Your task to perform on an android device: turn on the 12-hour format for clock Image 0: 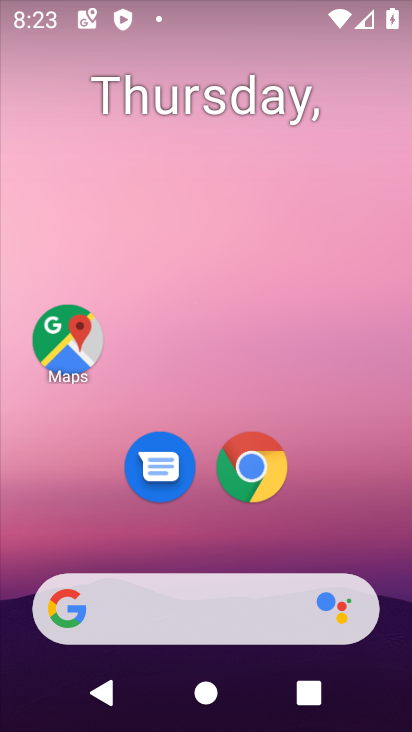
Step 0: drag from (343, 555) to (346, 274)
Your task to perform on an android device: turn on the 12-hour format for clock Image 1: 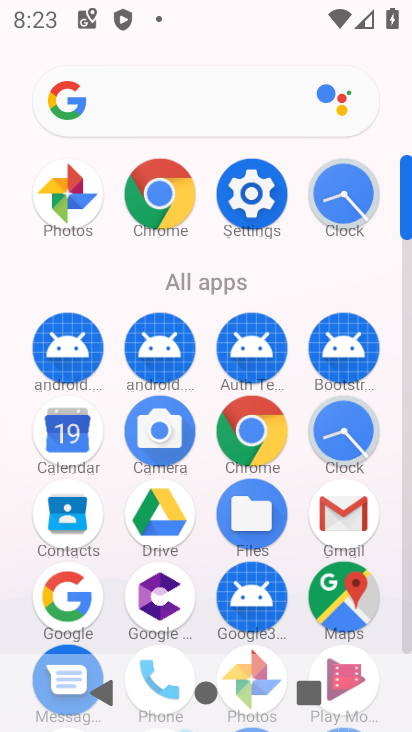
Step 1: click (333, 428)
Your task to perform on an android device: turn on the 12-hour format for clock Image 2: 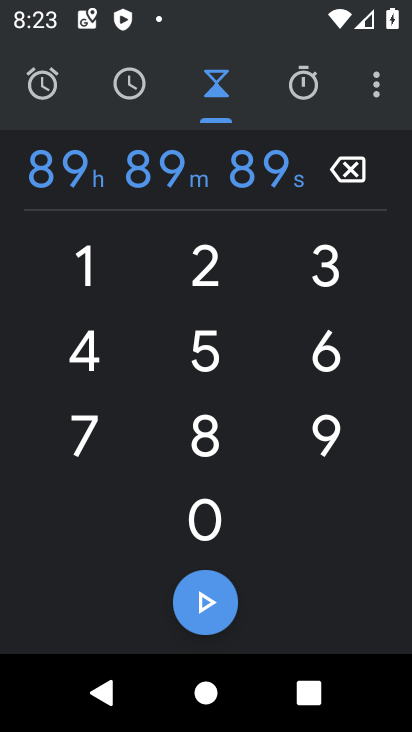
Step 2: click (376, 99)
Your task to perform on an android device: turn on the 12-hour format for clock Image 3: 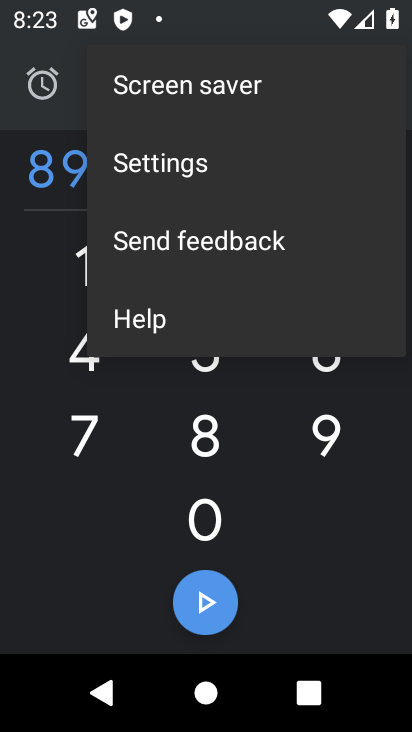
Step 3: click (229, 175)
Your task to perform on an android device: turn on the 12-hour format for clock Image 4: 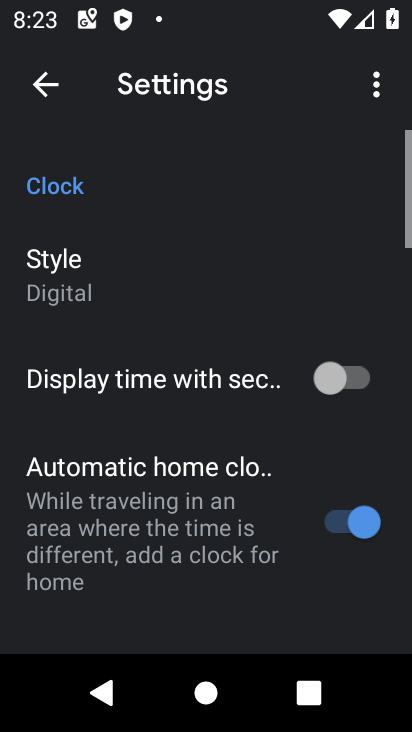
Step 4: drag from (264, 518) to (266, 240)
Your task to perform on an android device: turn on the 12-hour format for clock Image 5: 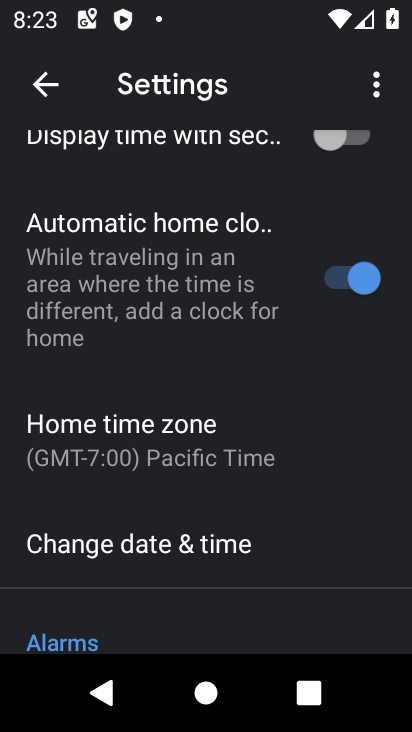
Step 5: drag from (199, 519) to (233, 280)
Your task to perform on an android device: turn on the 12-hour format for clock Image 6: 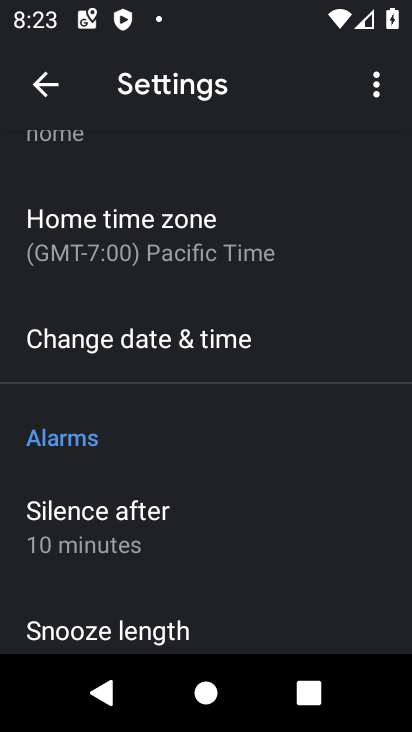
Step 6: click (197, 349)
Your task to perform on an android device: turn on the 12-hour format for clock Image 7: 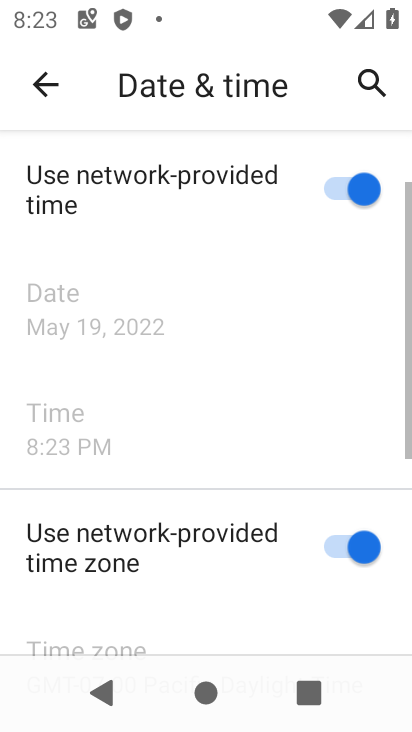
Step 7: drag from (241, 568) to (295, 254)
Your task to perform on an android device: turn on the 12-hour format for clock Image 8: 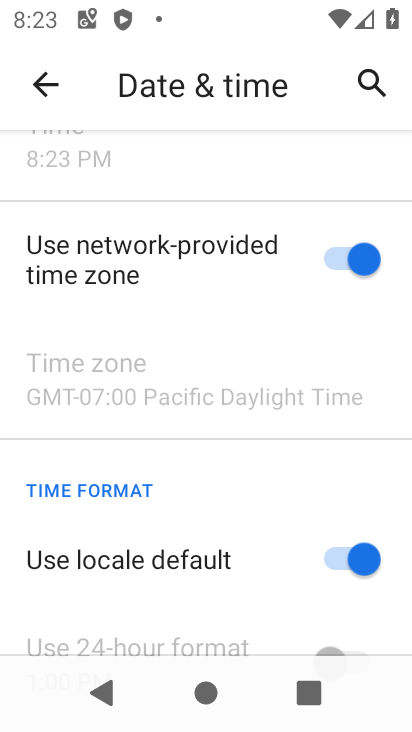
Step 8: drag from (198, 584) to (211, 369)
Your task to perform on an android device: turn on the 12-hour format for clock Image 9: 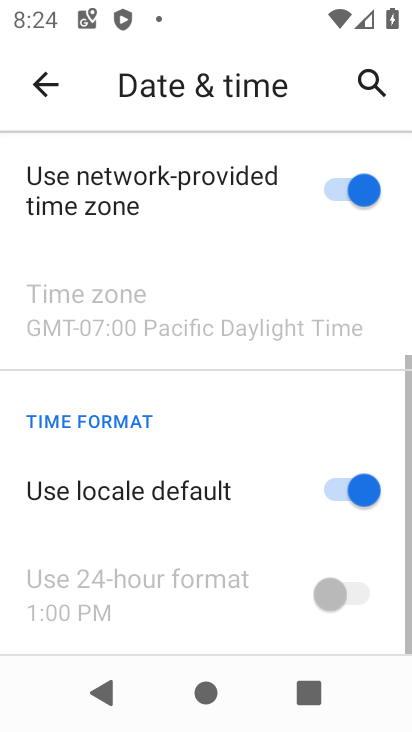
Step 9: click (354, 595)
Your task to perform on an android device: turn on the 12-hour format for clock Image 10: 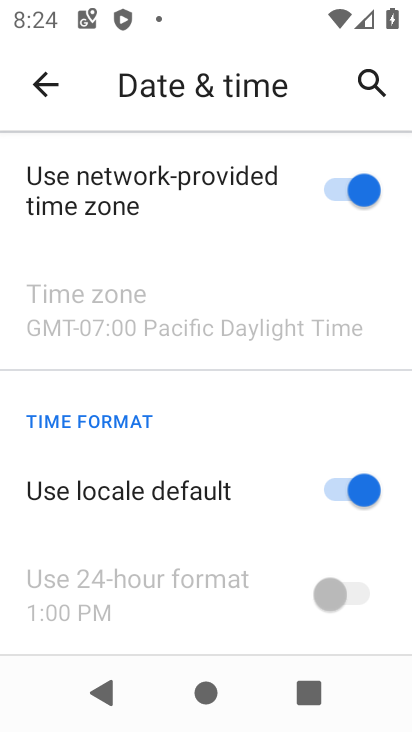
Step 10: click (332, 482)
Your task to perform on an android device: turn on the 12-hour format for clock Image 11: 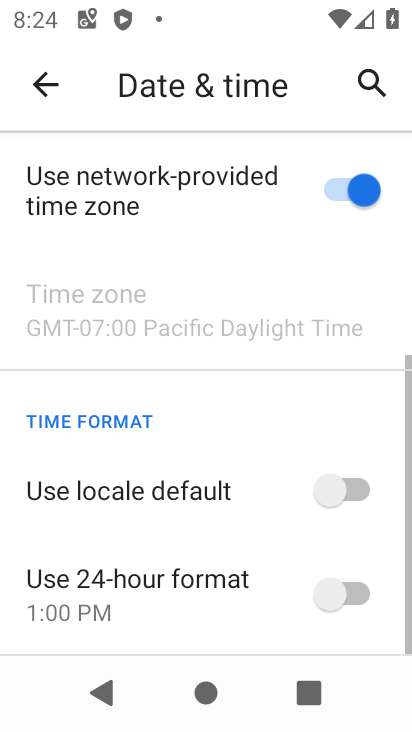
Step 11: click (358, 592)
Your task to perform on an android device: turn on the 12-hour format for clock Image 12: 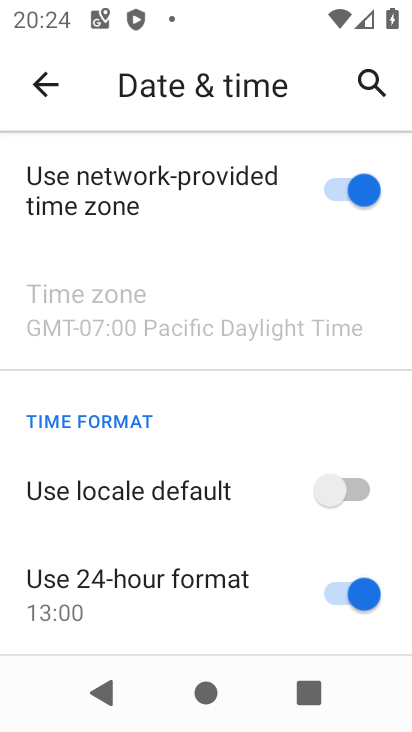
Step 12: task complete